Your task to perform on an android device: Is it going to rain today? Image 0: 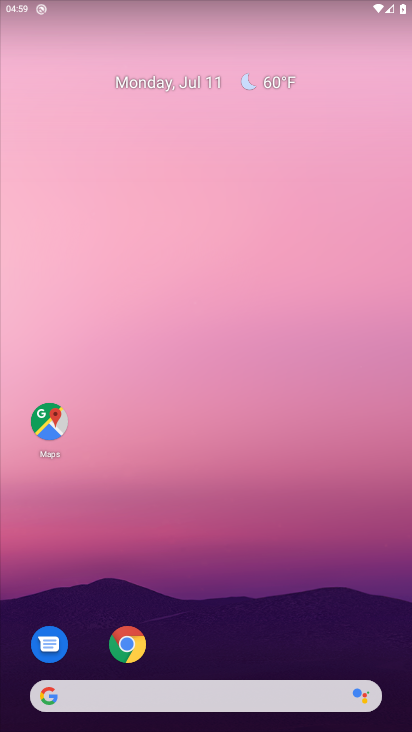
Step 0: drag from (187, 648) to (173, 163)
Your task to perform on an android device: Is it going to rain today? Image 1: 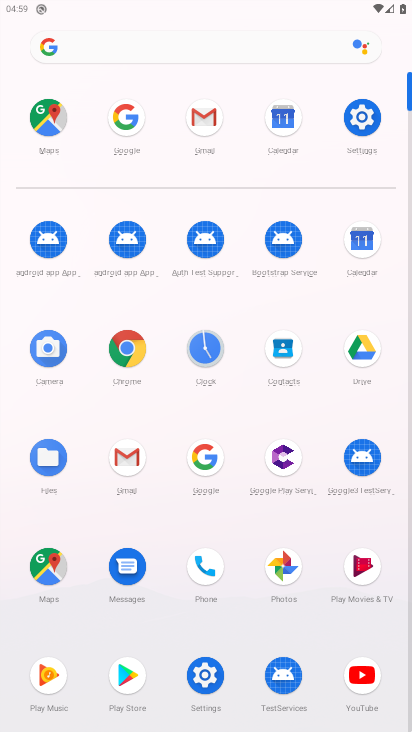
Step 1: click (210, 453)
Your task to perform on an android device: Is it going to rain today? Image 2: 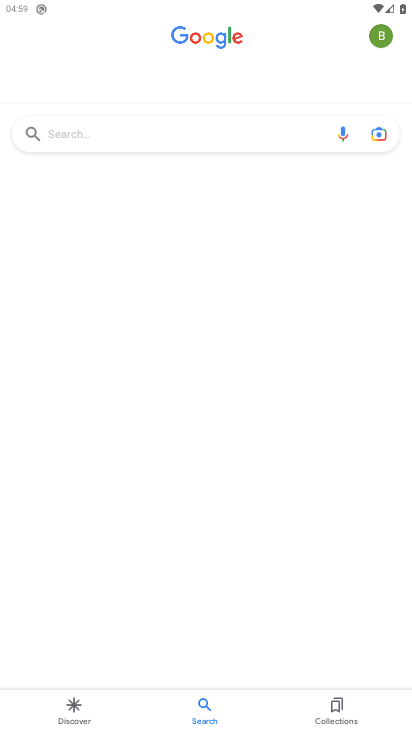
Step 2: click (152, 140)
Your task to perform on an android device: Is it going to rain today? Image 3: 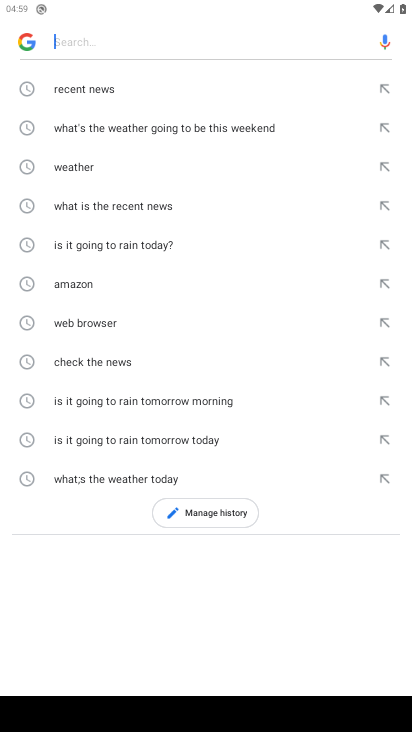
Step 3: click (141, 246)
Your task to perform on an android device: Is it going to rain today? Image 4: 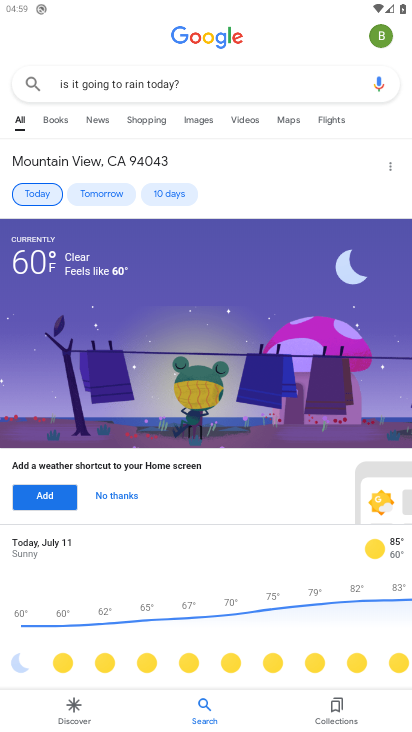
Step 4: task complete